Your task to perform on an android device: move a message to another label in the gmail app Image 0: 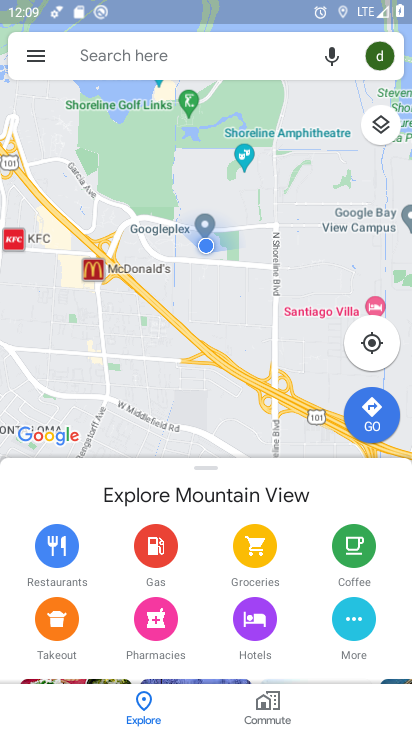
Step 0: press home button
Your task to perform on an android device: move a message to another label in the gmail app Image 1: 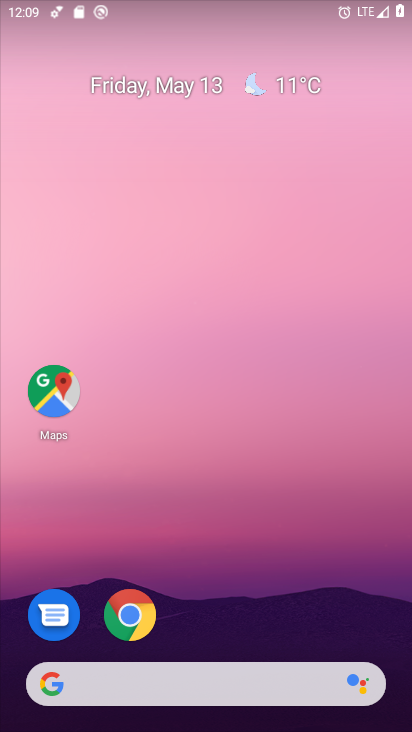
Step 1: drag from (227, 490) to (238, 18)
Your task to perform on an android device: move a message to another label in the gmail app Image 2: 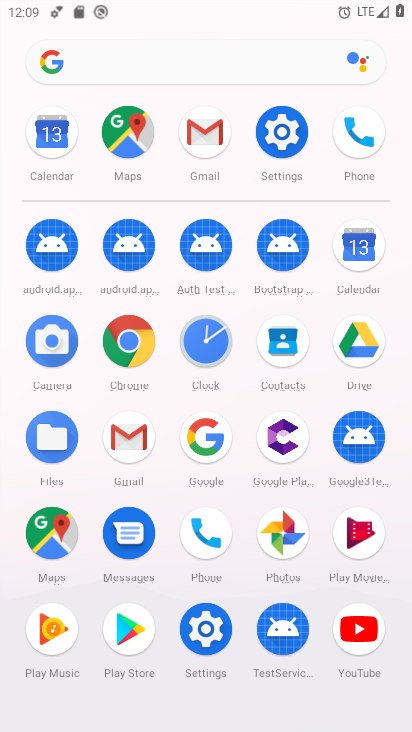
Step 2: click (201, 130)
Your task to perform on an android device: move a message to another label in the gmail app Image 3: 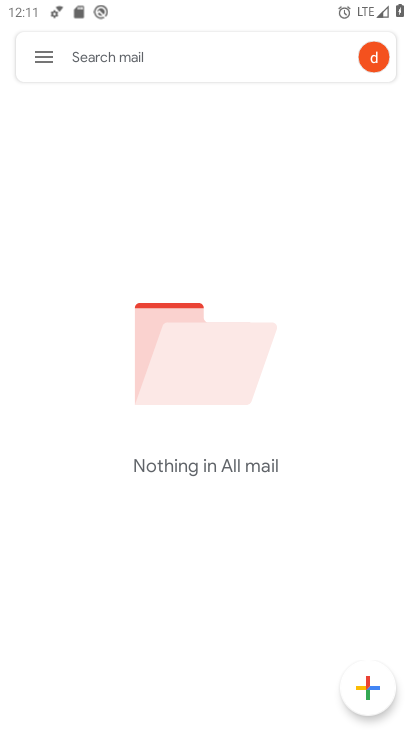
Step 3: task complete